Your task to perform on an android device: Open the Play Movies app and select the watchlist tab. Image 0: 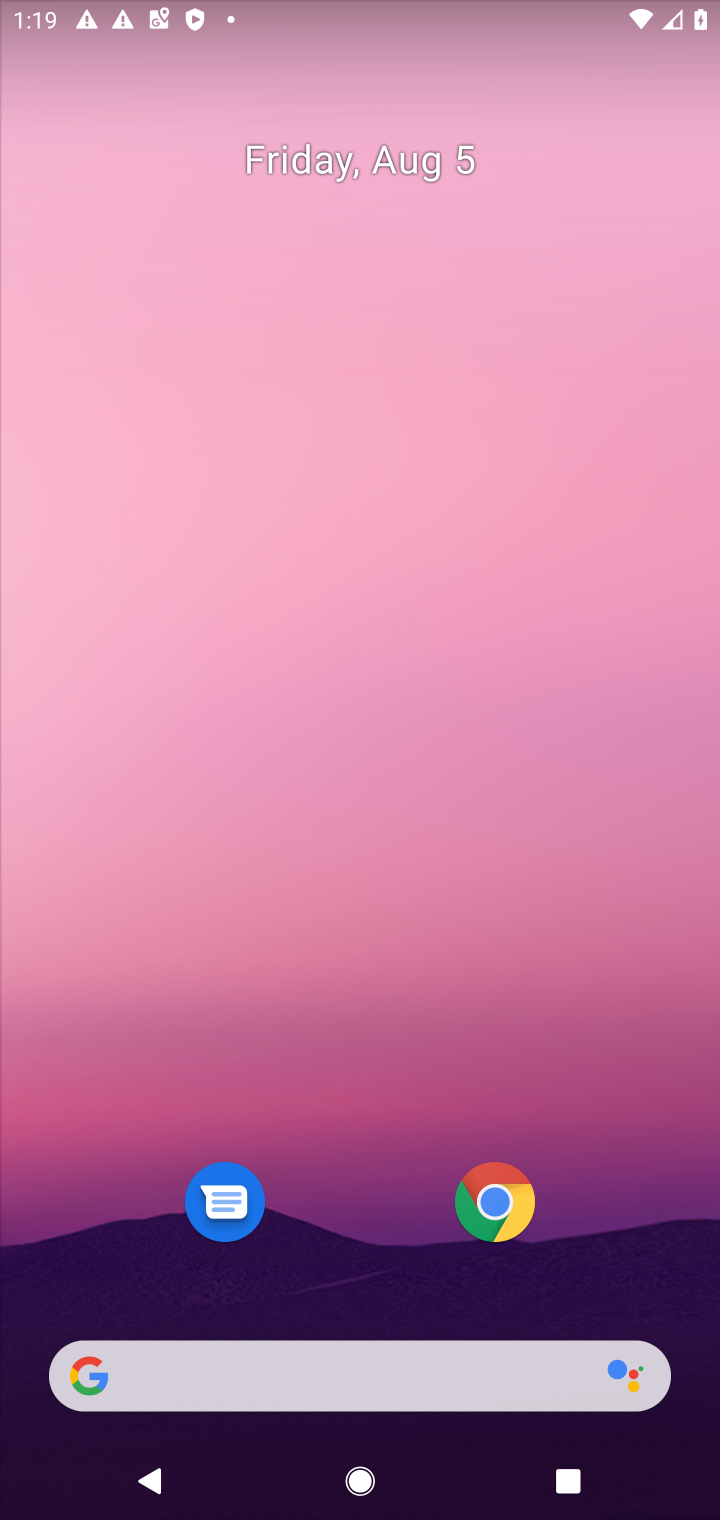
Step 0: press home button
Your task to perform on an android device: Open the Play Movies app and select the watchlist tab. Image 1: 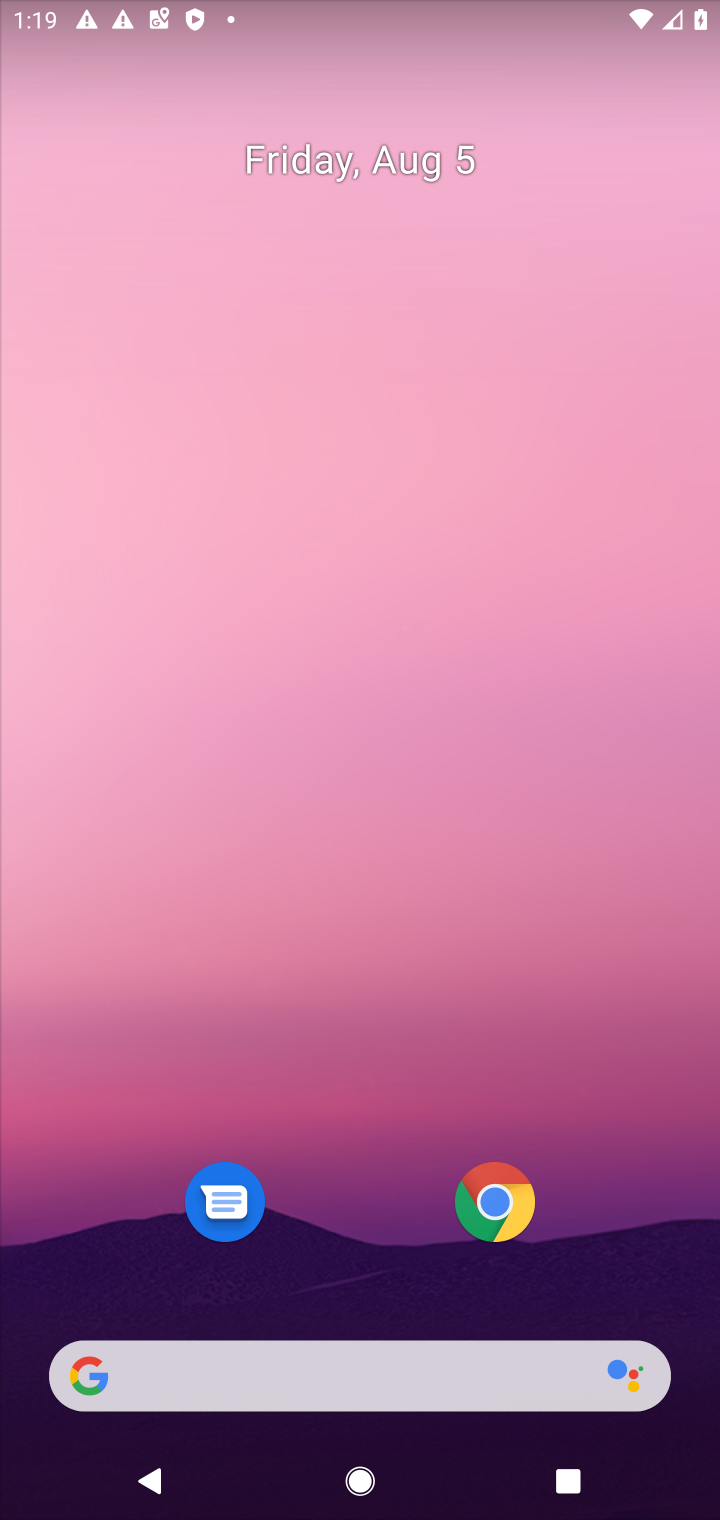
Step 1: drag from (596, 808) to (515, 95)
Your task to perform on an android device: Open the Play Movies app and select the watchlist tab. Image 2: 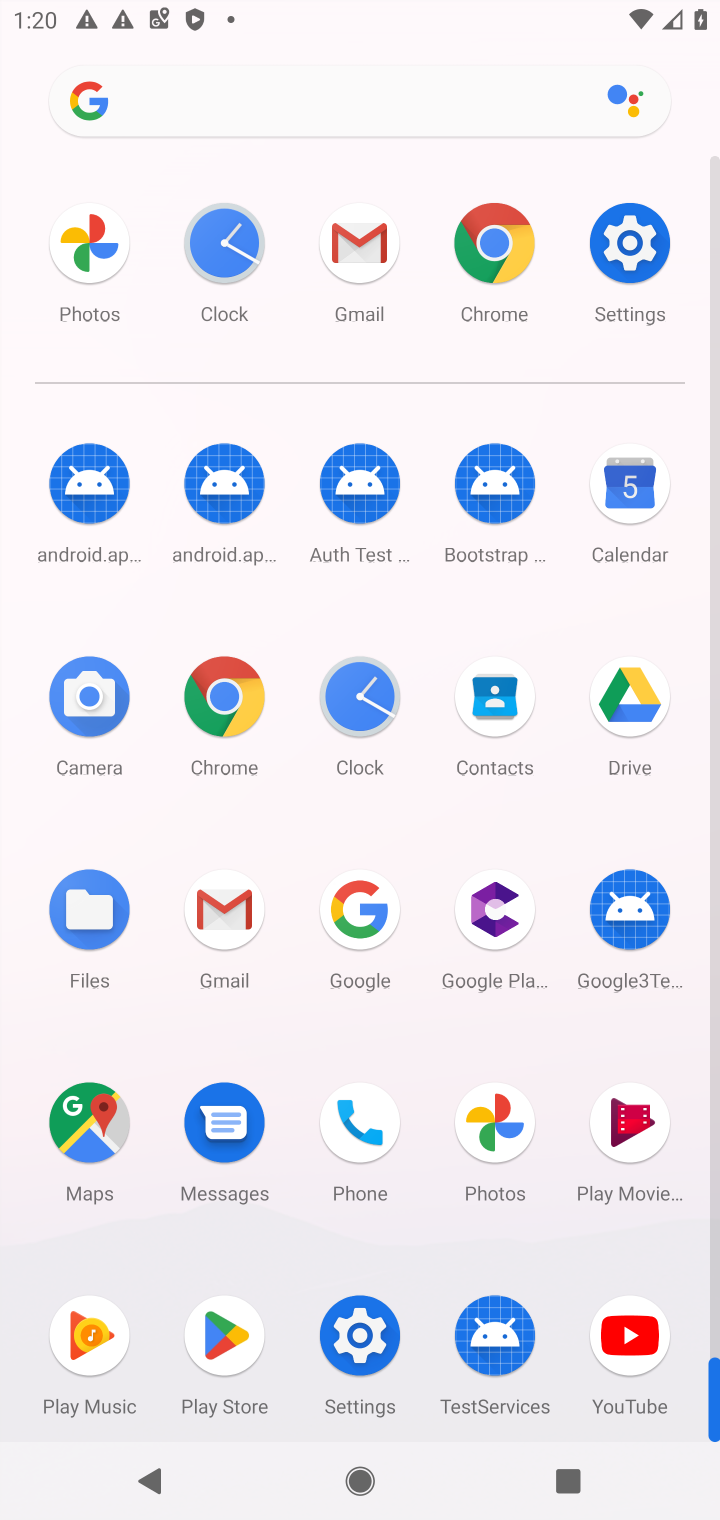
Step 2: click (620, 1129)
Your task to perform on an android device: Open the Play Movies app and select the watchlist tab. Image 3: 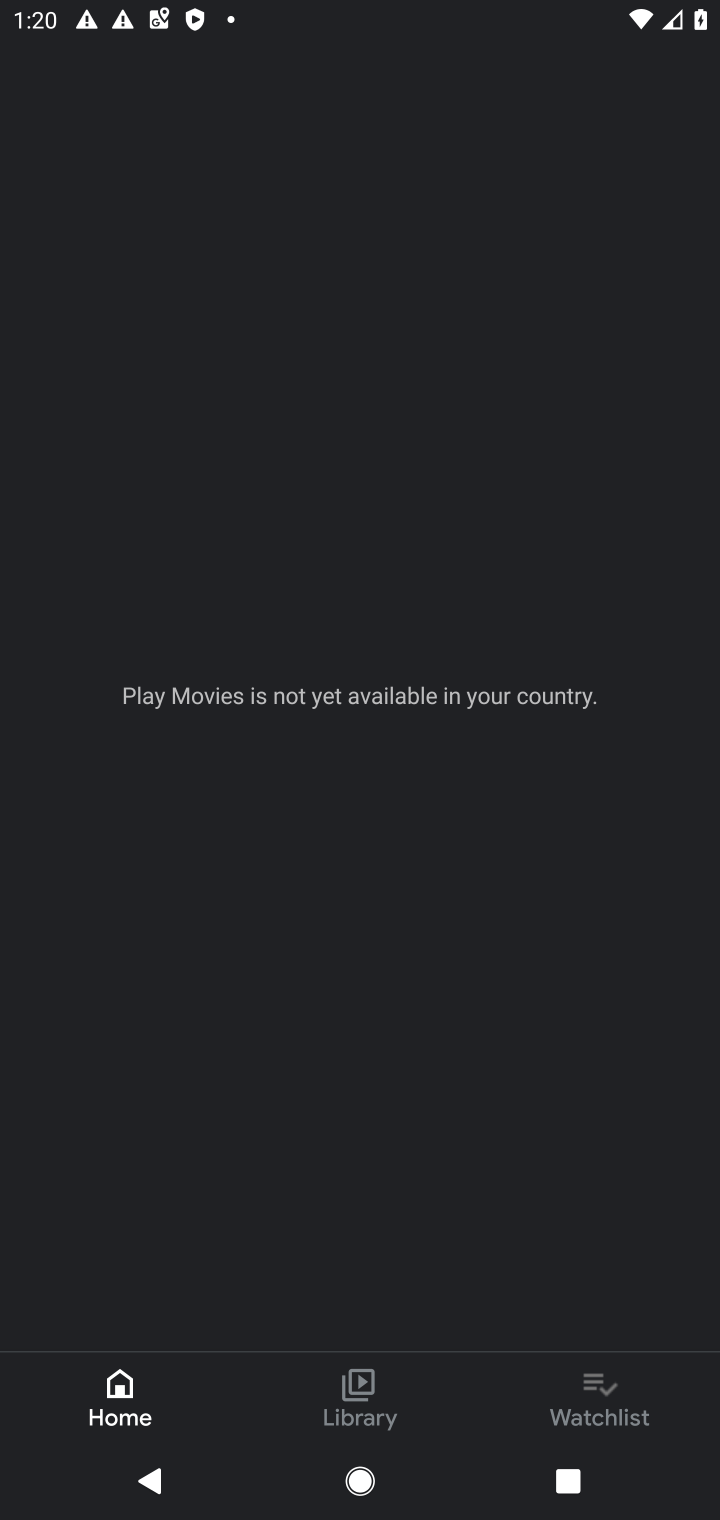
Step 3: click (561, 1389)
Your task to perform on an android device: Open the Play Movies app and select the watchlist tab. Image 4: 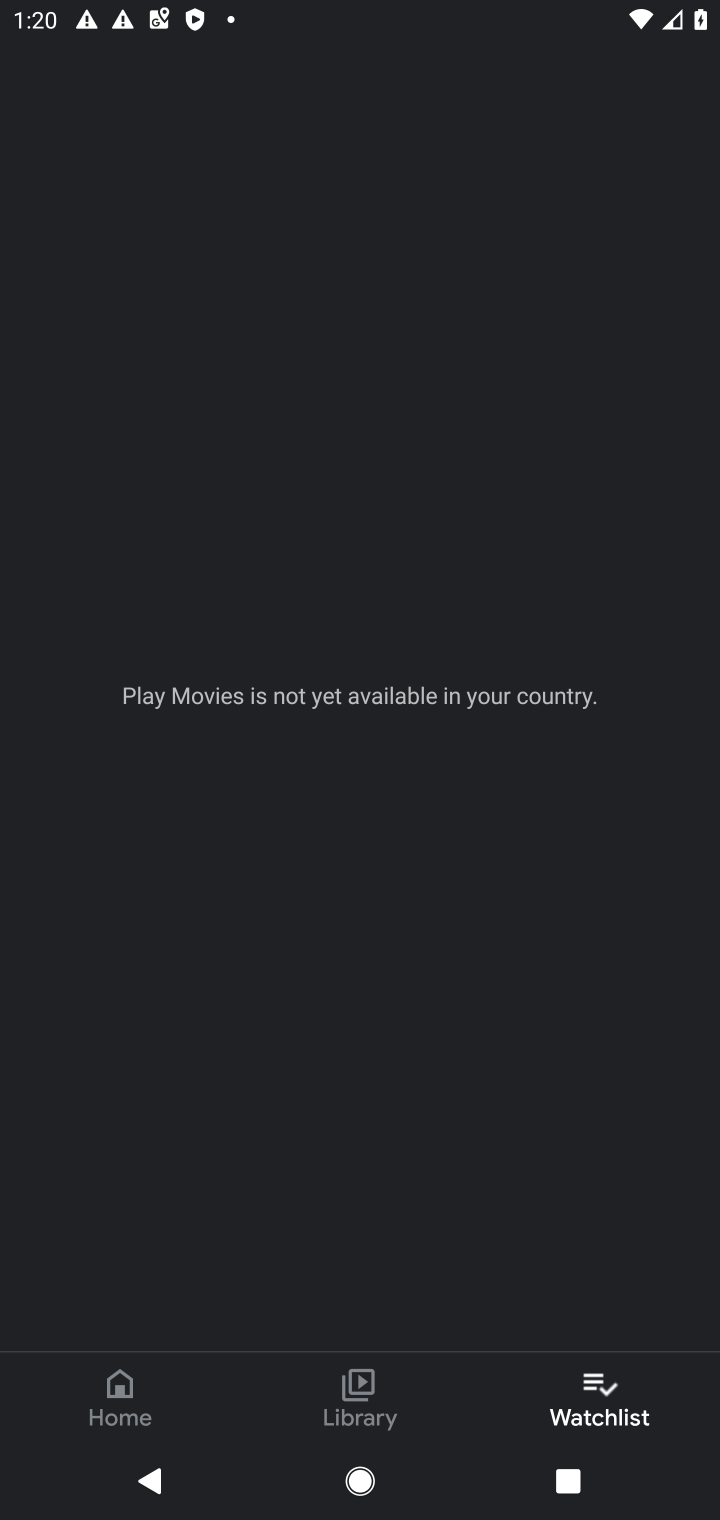
Step 4: task complete